Your task to perform on an android device: turn on priority inbox in the gmail app Image 0: 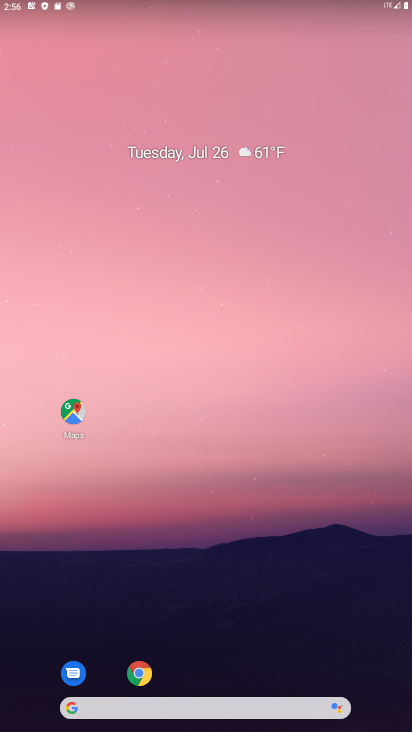
Step 0: drag from (185, 657) to (232, 272)
Your task to perform on an android device: turn on priority inbox in the gmail app Image 1: 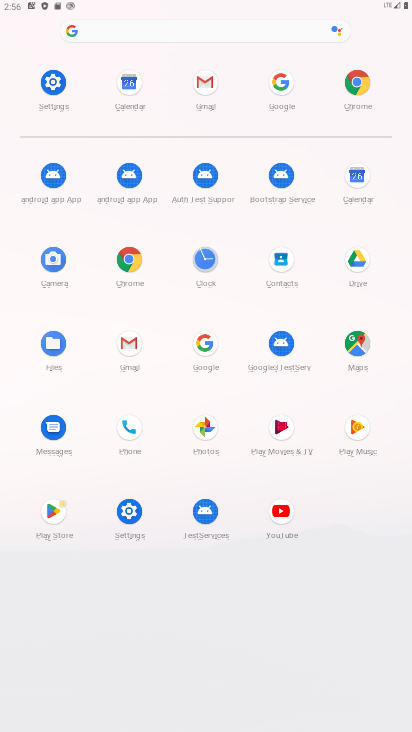
Step 1: click (125, 344)
Your task to perform on an android device: turn on priority inbox in the gmail app Image 2: 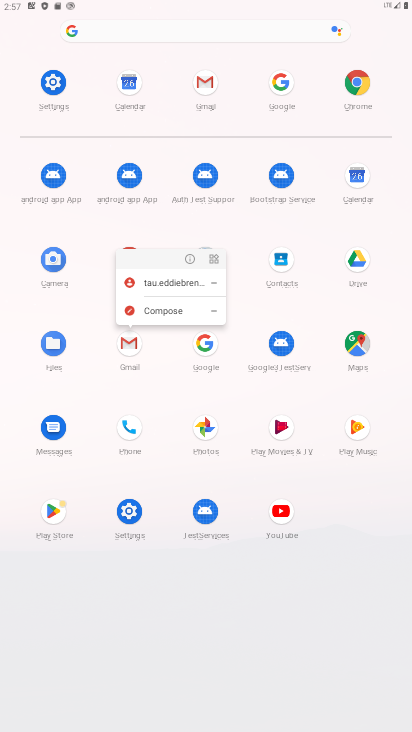
Step 2: click (189, 251)
Your task to perform on an android device: turn on priority inbox in the gmail app Image 3: 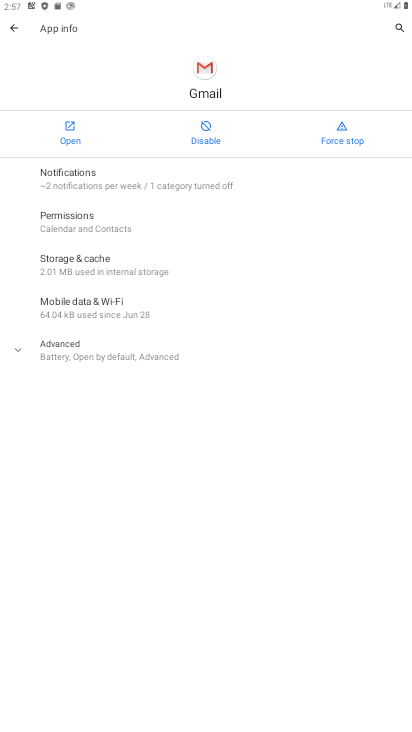
Step 3: click (57, 130)
Your task to perform on an android device: turn on priority inbox in the gmail app Image 4: 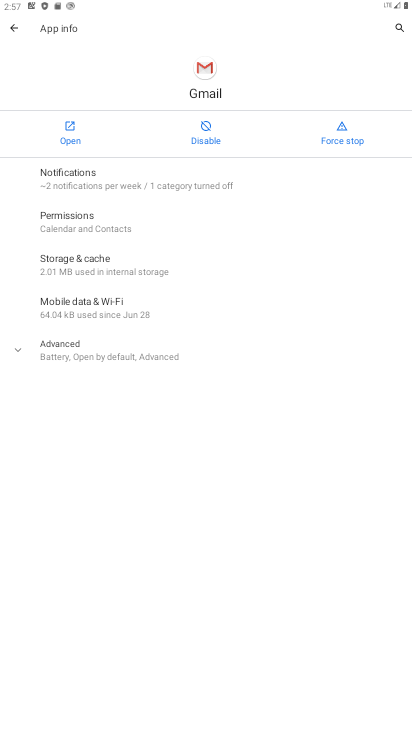
Step 4: click (57, 130)
Your task to perform on an android device: turn on priority inbox in the gmail app Image 5: 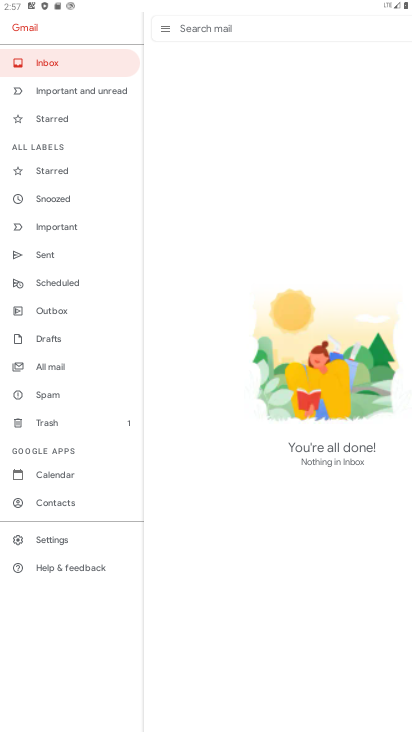
Step 5: click (52, 535)
Your task to perform on an android device: turn on priority inbox in the gmail app Image 6: 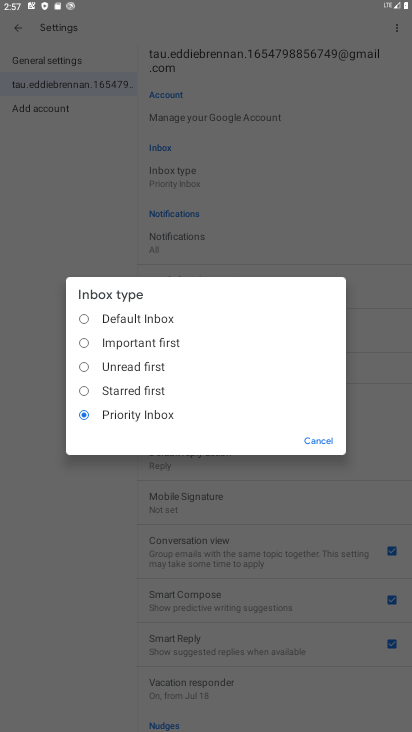
Step 6: task complete